Your task to perform on an android device: turn notification dots off Image 0: 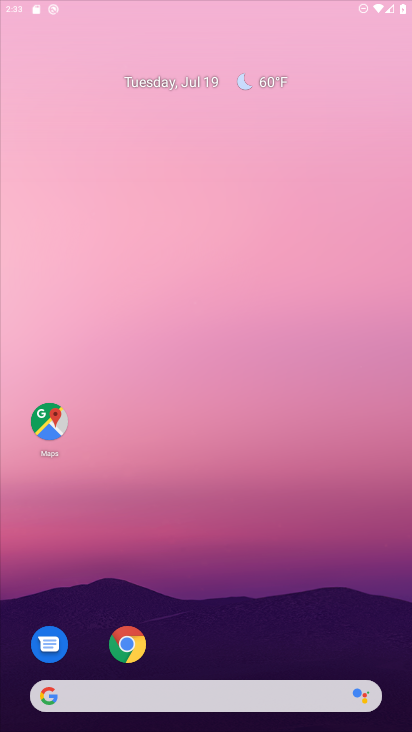
Step 0: press home button
Your task to perform on an android device: turn notification dots off Image 1: 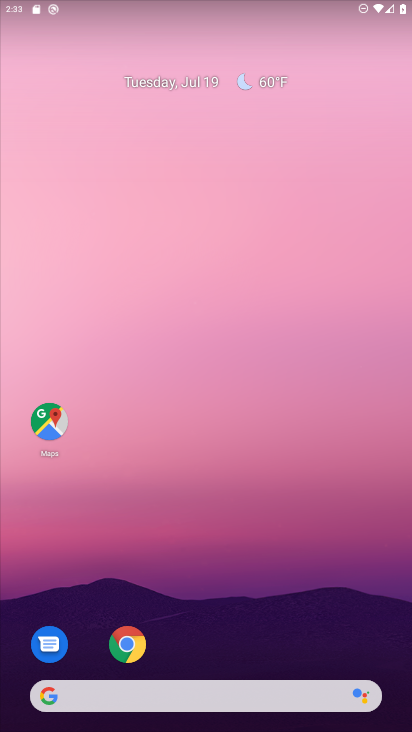
Step 1: drag from (367, 609) to (299, 54)
Your task to perform on an android device: turn notification dots off Image 2: 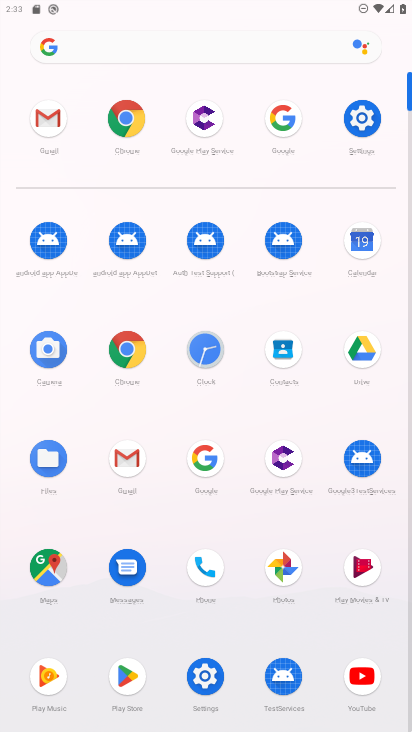
Step 2: click (366, 118)
Your task to perform on an android device: turn notification dots off Image 3: 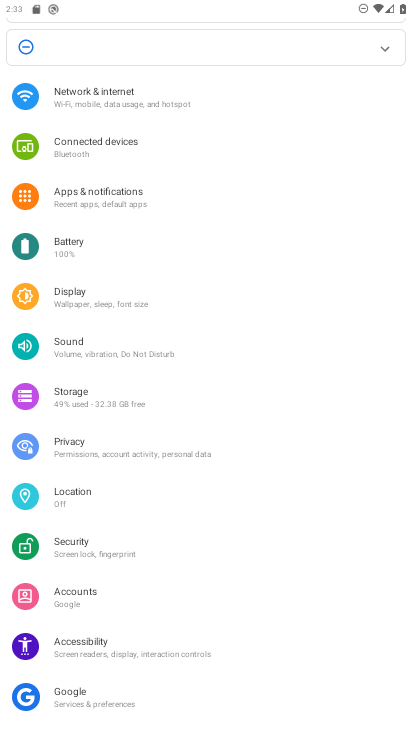
Step 3: click (104, 192)
Your task to perform on an android device: turn notification dots off Image 4: 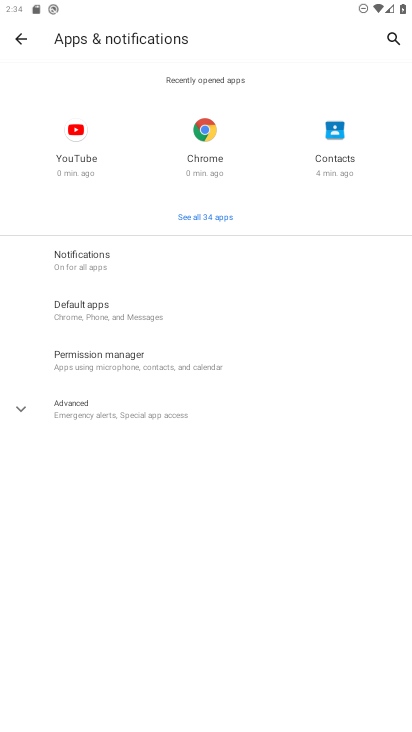
Step 4: click (87, 262)
Your task to perform on an android device: turn notification dots off Image 5: 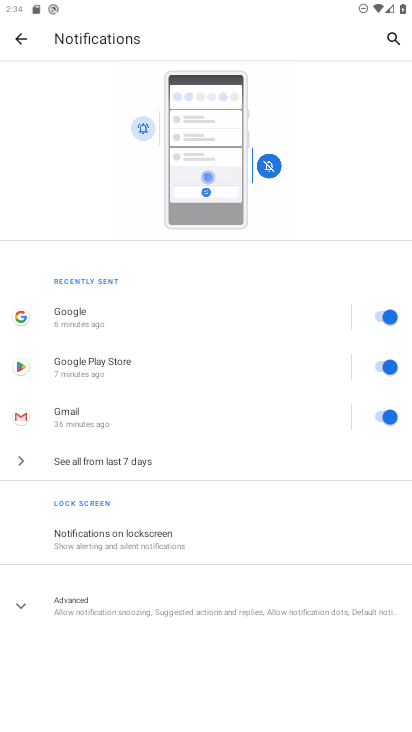
Step 5: click (91, 535)
Your task to perform on an android device: turn notification dots off Image 6: 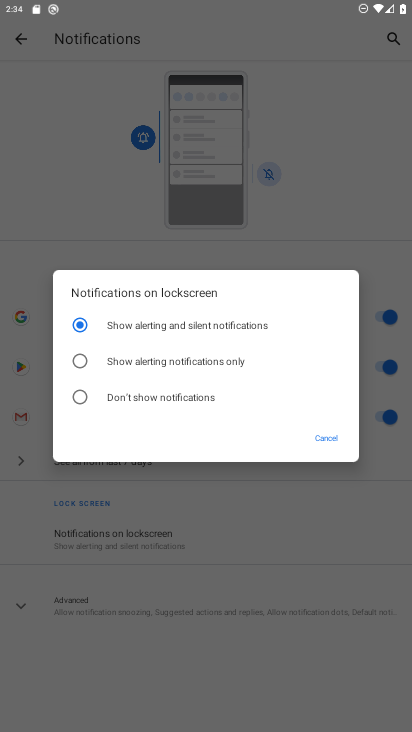
Step 6: click (23, 594)
Your task to perform on an android device: turn notification dots off Image 7: 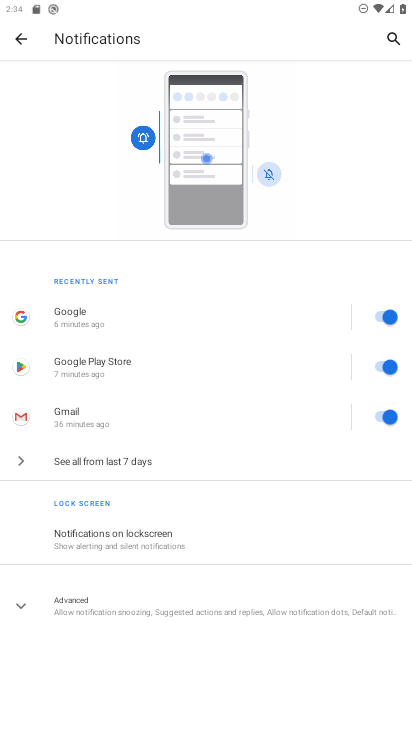
Step 7: click (23, 599)
Your task to perform on an android device: turn notification dots off Image 8: 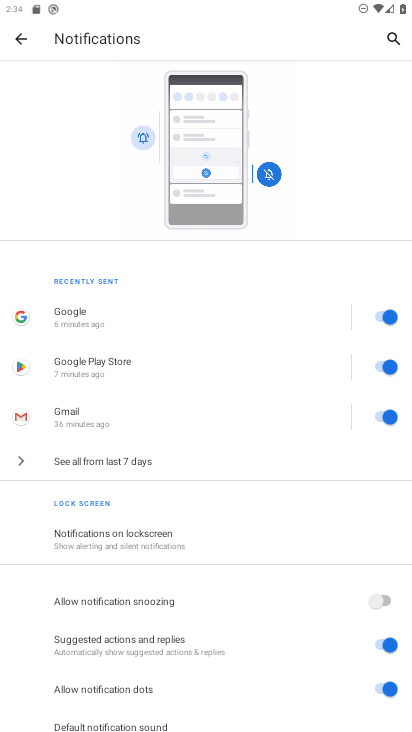
Step 8: drag from (254, 693) to (262, 411)
Your task to perform on an android device: turn notification dots off Image 9: 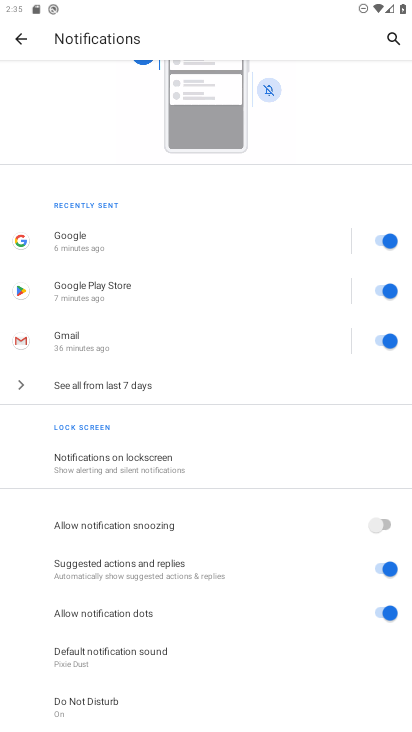
Step 9: click (382, 603)
Your task to perform on an android device: turn notification dots off Image 10: 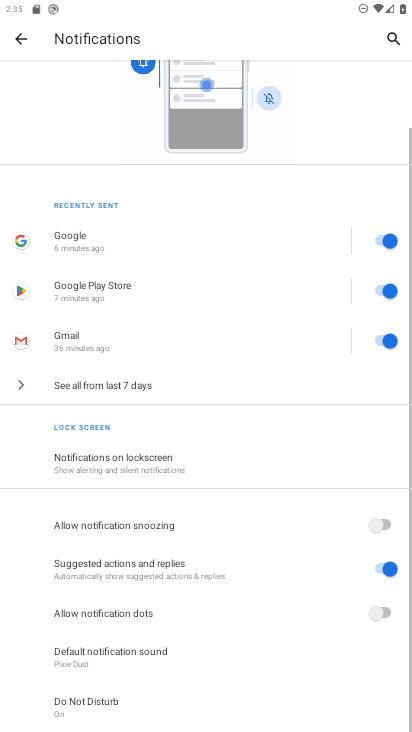
Step 10: task complete